Your task to perform on an android device: add a label to a message in the gmail app Image 0: 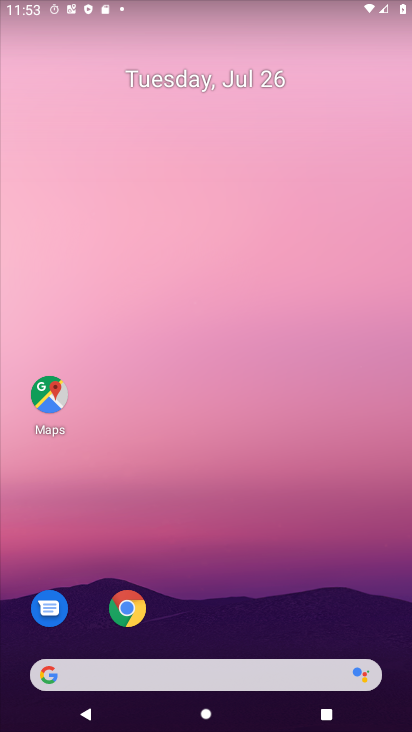
Step 0: drag from (229, 619) to (229, 107)
Your task to perform on an android device: add a label to a message in the gmail app Image 1: 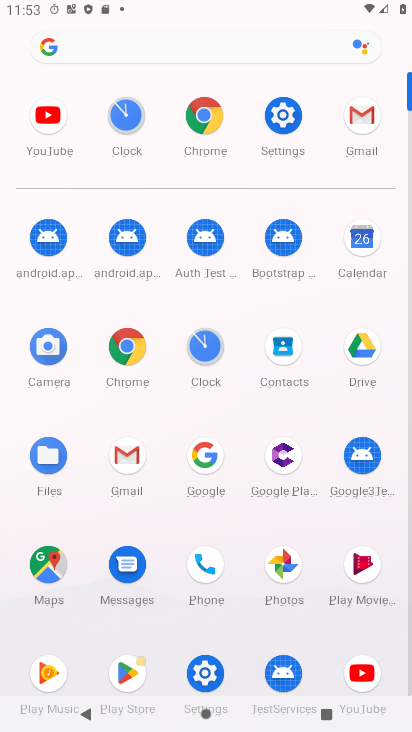
Step 1: click (132, 446)
Your task to perform on an android device: add a label to a message in the gmail app Image 2: 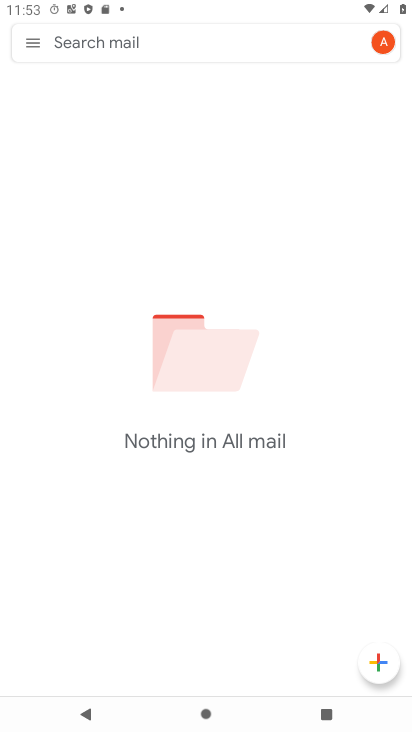
Step 2: click (34, 24)
Your task to perform on an android device: add a label to a message in the gmail app Image 3: 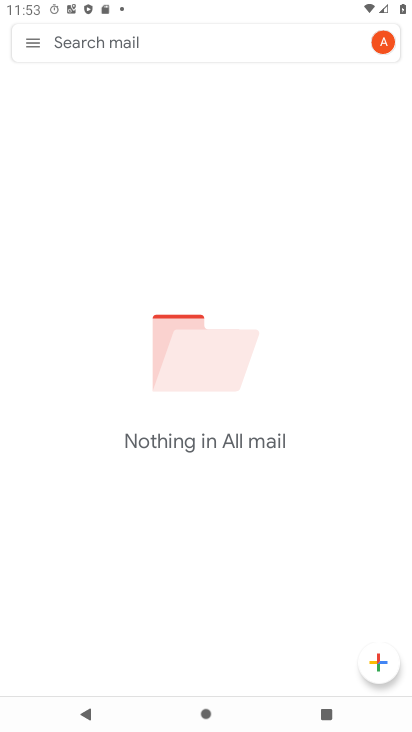
Step 3: click (20, 38)
Your task to perform on an android device: add a label to a message in the gmail app Image 4: 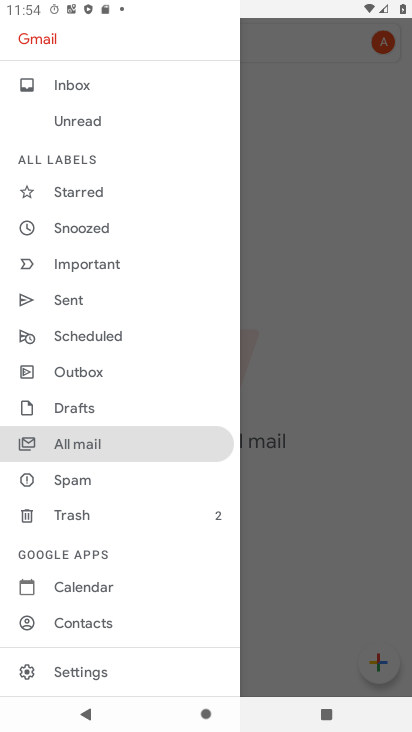
Step 4: click (53, 430)
Your task to perform on an android device: add a label to a message in the gmail app Image 5: 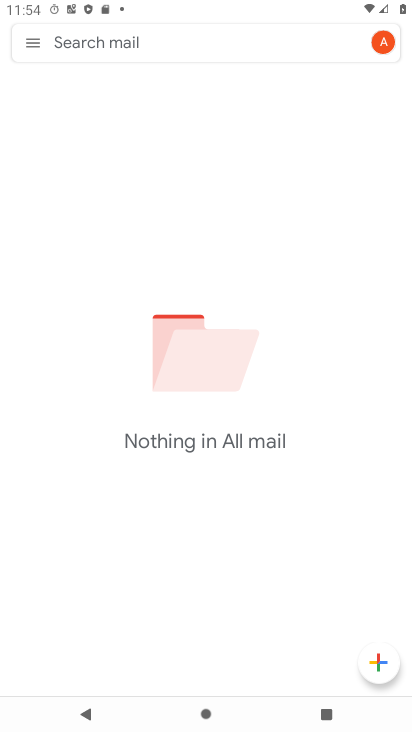
Step 5: task complete